Your task to perform on an android device: show emergency info Image 0: 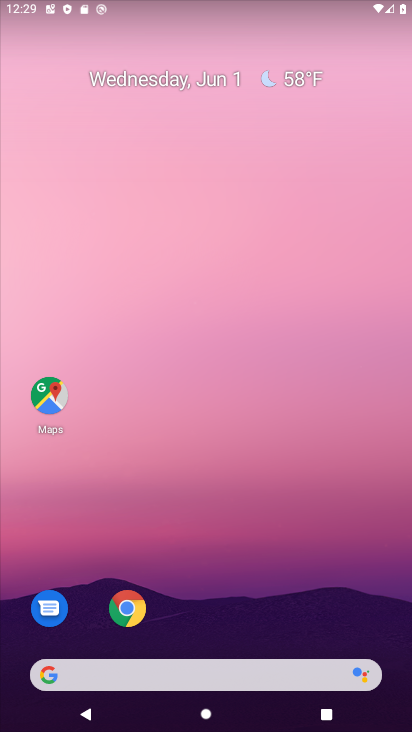
Step 0: drag from (257, 570) to (205, 13)
Your task to perform on an android device: show emergency info Image 1: 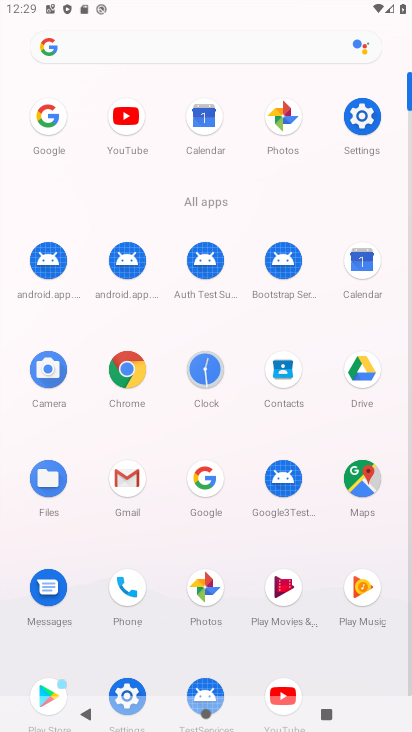
Step 1: click (371, 112)
Your task to perform on an android device: show emergency info Image 2: 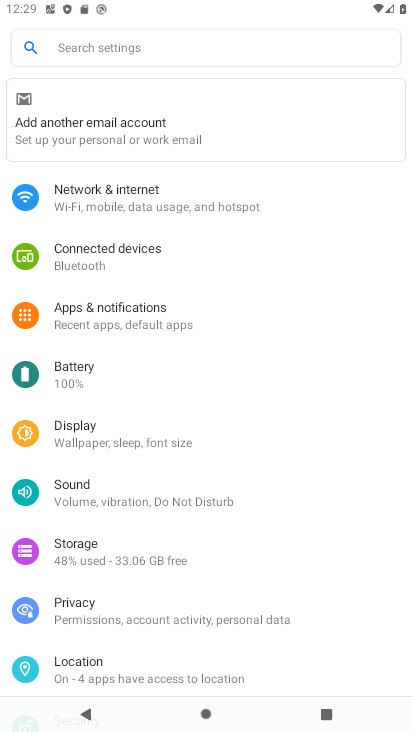
Step 2: drag from (204, 672) to (143, 119)
Your task to perform on an android device: show emergency info Image 3: 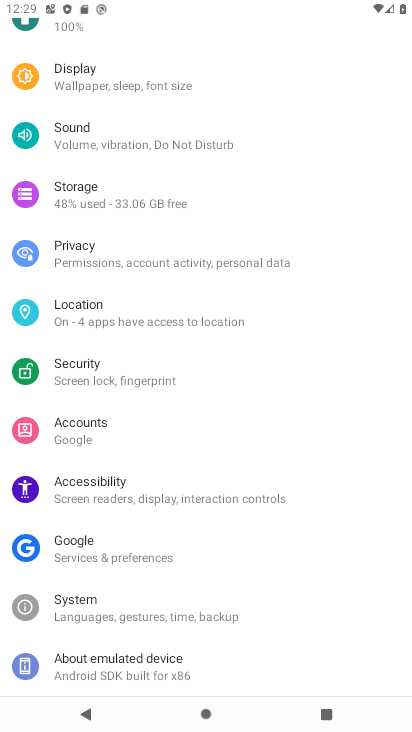
Step 3: click (130, 662)
Your task to perform on an android device: show emergency info Image 4: 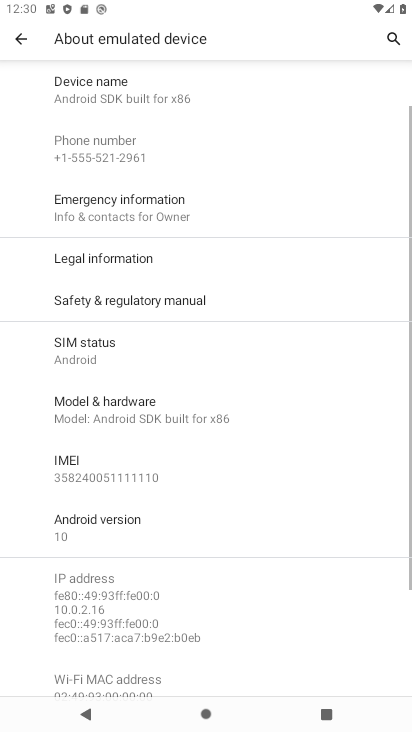
Step 4: click (119, 200)
Your task to perform on an android device: show emergency info Image 5: 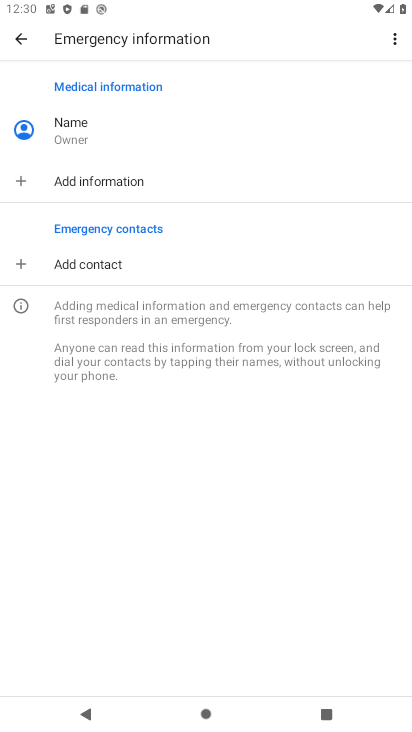
Step 5: task complete